Your task to perform on an android device: Go to Android settings Image 0: 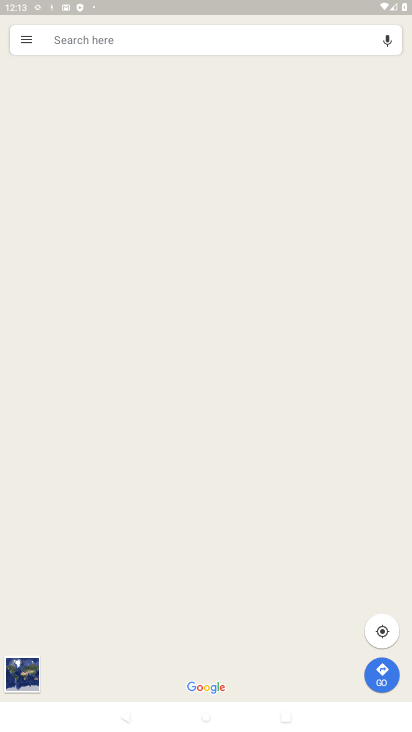
Step 0: drag from (196, 603) to (152, 283)
Your task to perform on an android device: Go to Android settings Image 1: 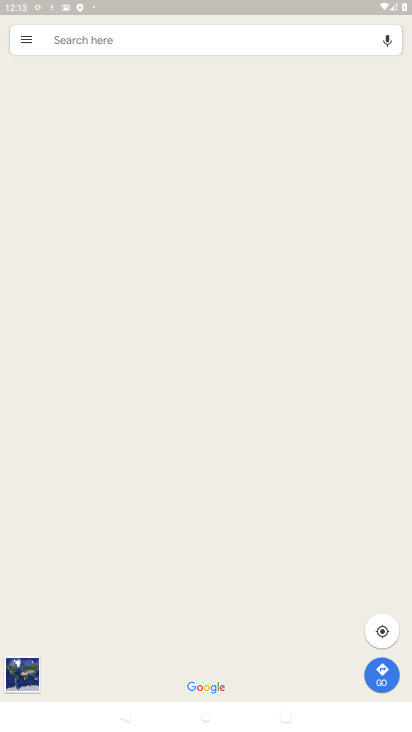
Step 1: press home button
Your task to perform on an android device: Go to Android settings Image 2: 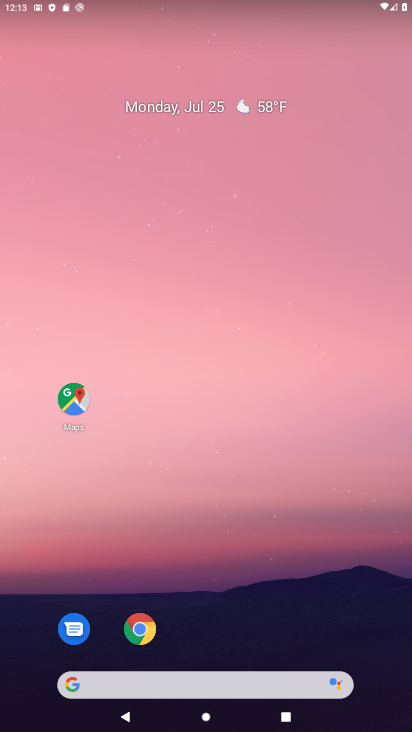
Step 2: drag from (197, 591) to (161, 71)
Your task to perform on an android device: Go to Android settings Image 3: 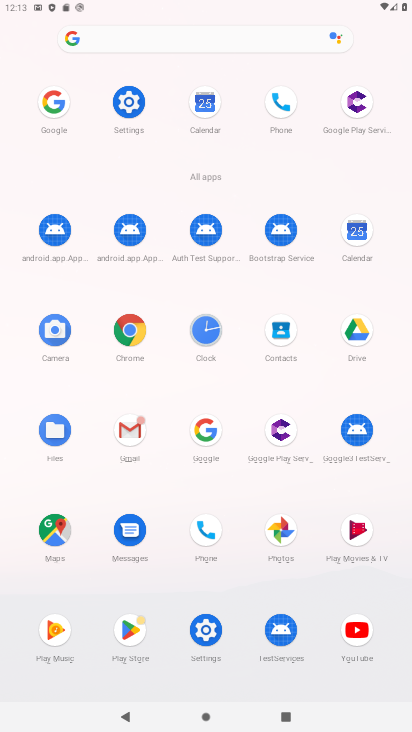
Step 3: click (129, 127)
Your task to perform on an android device: Go to Android settings Image 4: 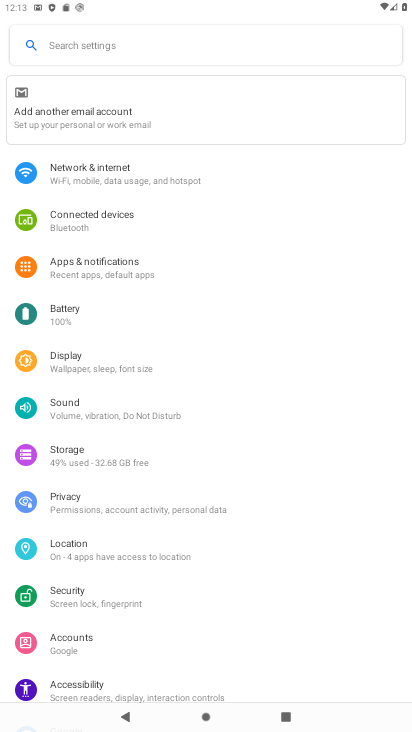
Step 4: drag from (196, 611) to (219, 68)
Your task to perform on an android device: Go to Android settings Image 5: 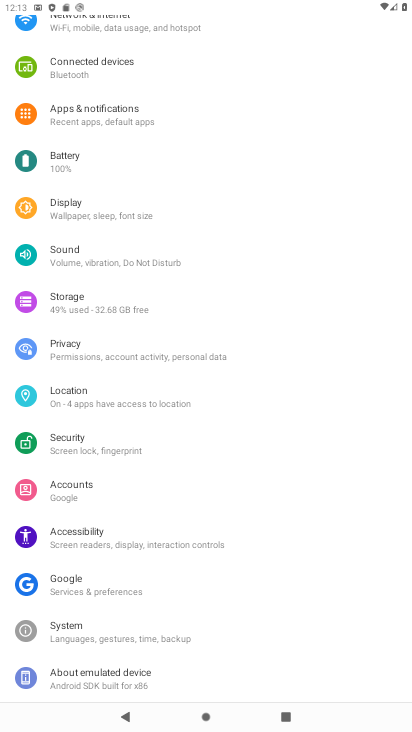
Step 5: drag from (155, 160) to (148, 651)
Your task to perform on an android device: Go to Android settings Image 6: 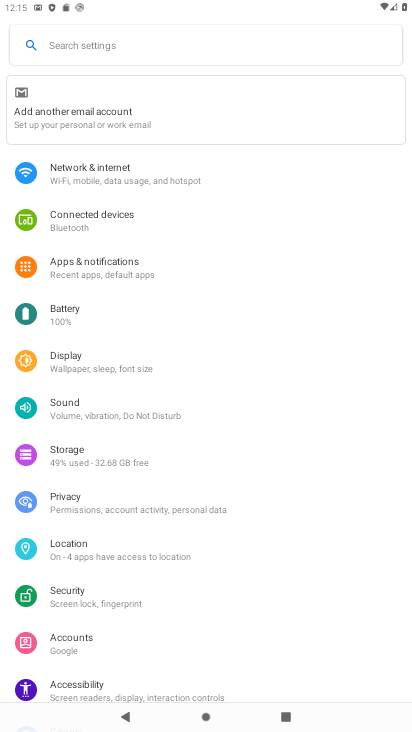
Step 6: click (176, 95)
Your task to perform on an android device: Go to Android settings Image 7: 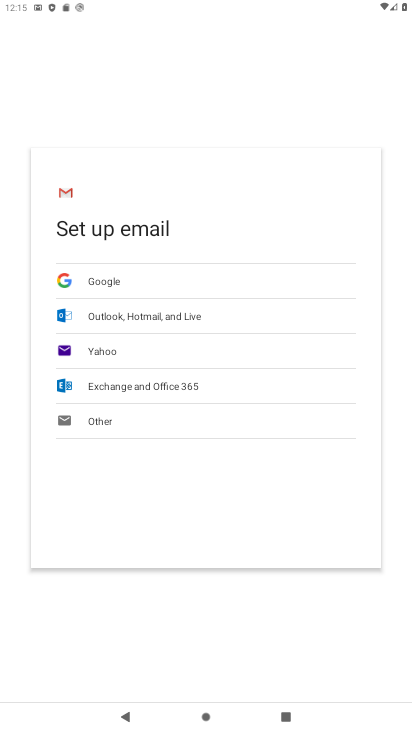
Step 7: press home button
Your task to perform on an android device: Go to Android settings Image 8: 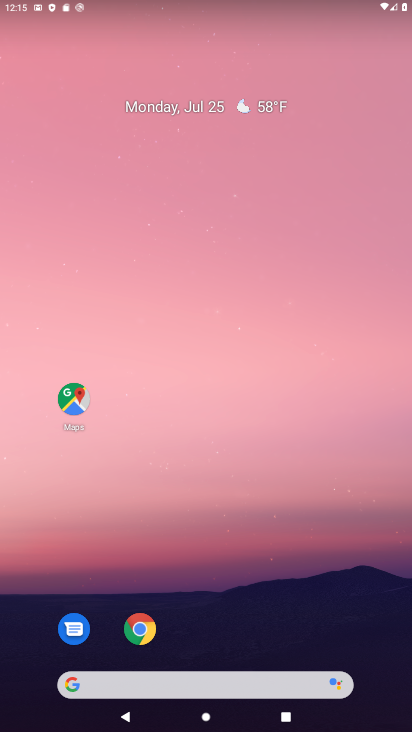
Step 8: drag from (217, 682) to (179, 20)
Your task to perform on an android device: Go to Android settings Image 9: 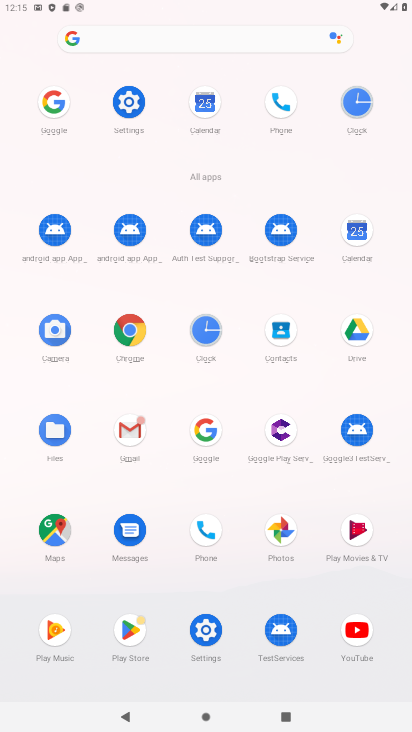
Step 9: click (207, 628)
Your task to perform on an android device: Go to Android settings Image 10: 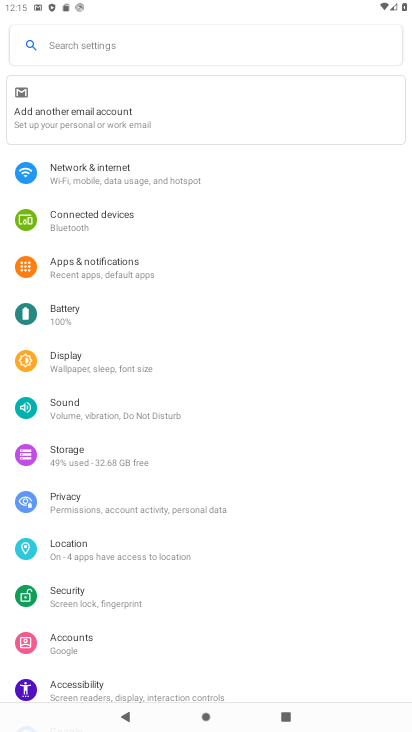
Step 10: click (149, 182)
Your task to perform on an android device: Go to Android settings Image 11: 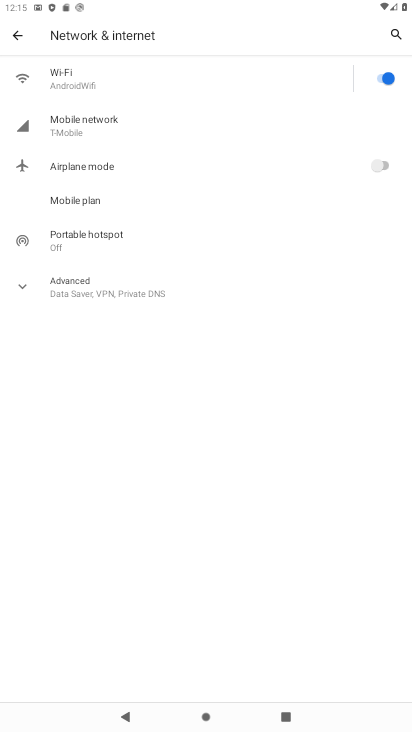
Step 11: click (60, 276)
Your task to perform on an android device: Go to Android settings Image 12: 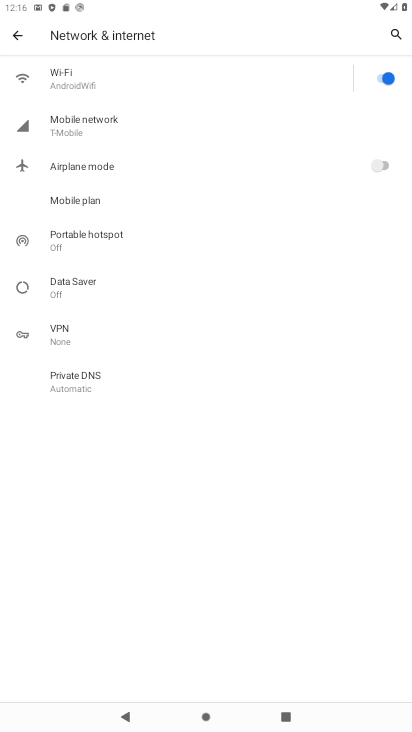
Step 12: click (22, 29)
Your task to perform on an android device: Go to Android settings Image 13: 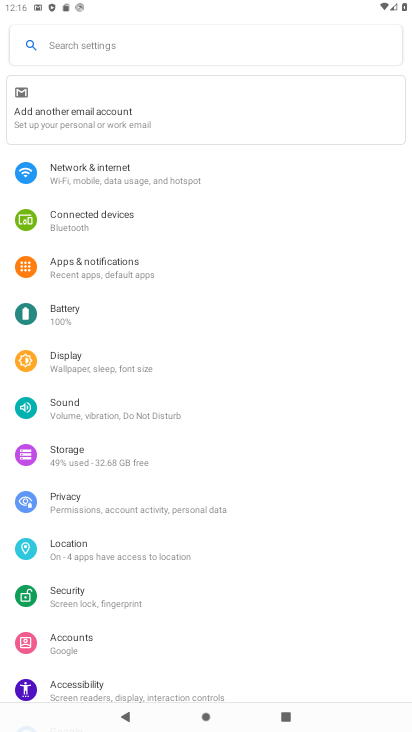
Step 13: task complete